Your task to perform on an android device: What's the weather going to be tomorrow? Image 0: 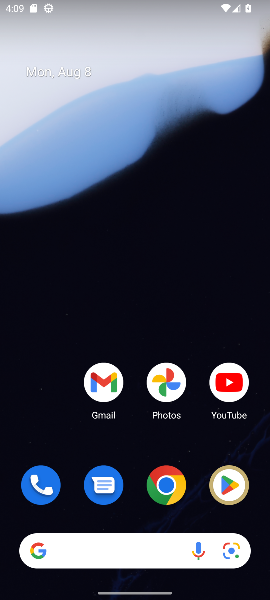
Step 0: press back button
Your task to perform on an android device: What's the weather going to be tomorrow? Image 1: 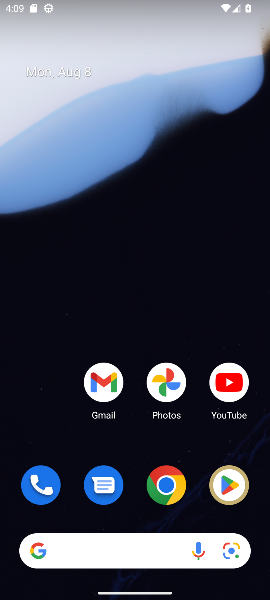
Step 1: drag from (184, 493) to (180, 127)
Your task to perform on an android device: What's the weather going to be tomorrow? Image 2: 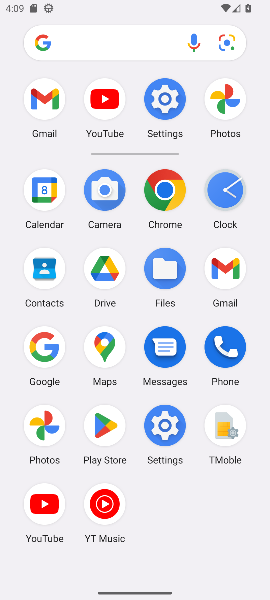
Step 2: click (162, 190)
Your task to perform on an android device: What's the weather going to be tomorrow? Image 3: 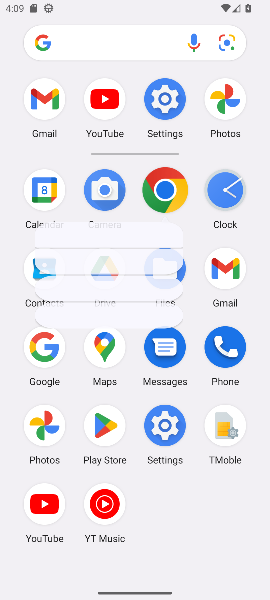
Step 3: click (162, 190)
Your task to perform on an android device: What's the weather going to be tomorrow? Image 4: 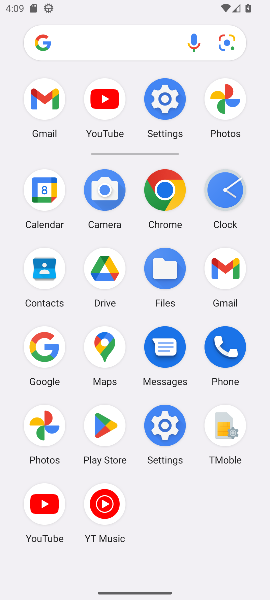
Step 4: click (162, 190)
Your task to perform on an android device: What's the weather going to be tomorrow? Image 5: 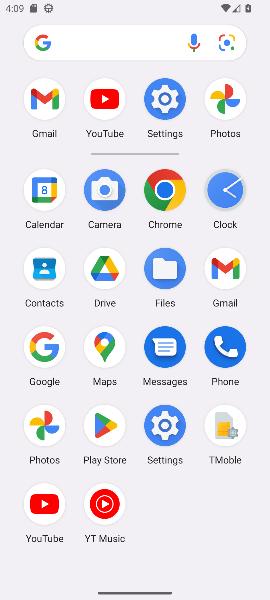
Step 5: click (162, 191)
Your task to perform on an android device: What's the weather going to be tomorrow? Image 6: 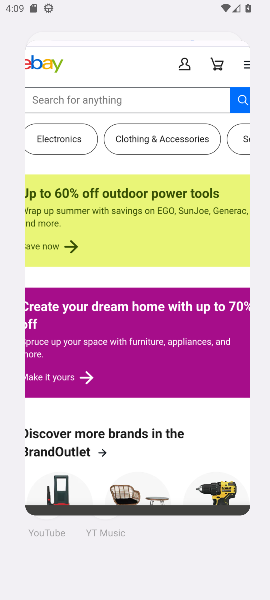
Step 6: click (162, 191)
Your task to perform on an android device: What's the weather going to be tomorrow? Image 7: 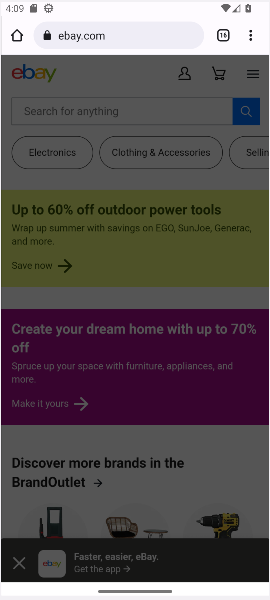
Step 7: click (161, 190)
Your task to perform on an android device: What's the weather going to be tomorrow? Image 8: 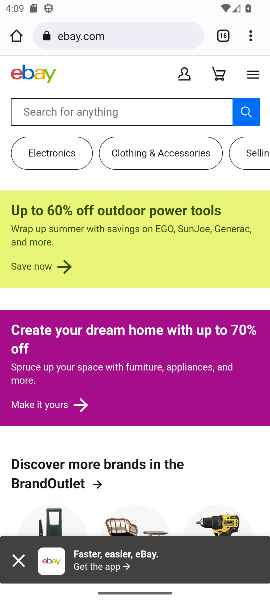
Step 8: click (171, 185)
Your task to perform on an android device: What's the weather going to be tomorrow? Image 9: 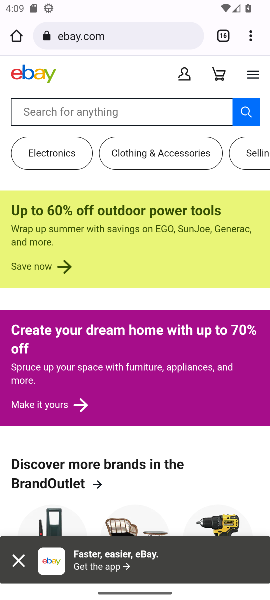
Step 9: drag from (250, 34) to (127, 65)
Your task to perform on an android device: What's the weather going to be tomorrow? Image 10: 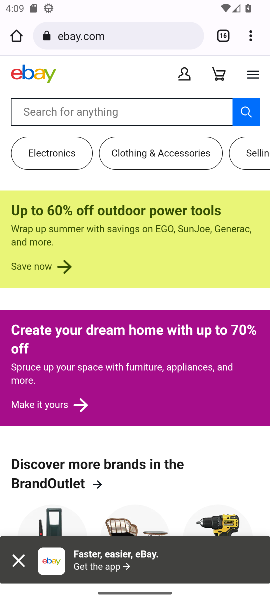
Step 10: click (126, 66)
Your task to perform on an android device: What's the weather going to be tomorrow? Image 11: 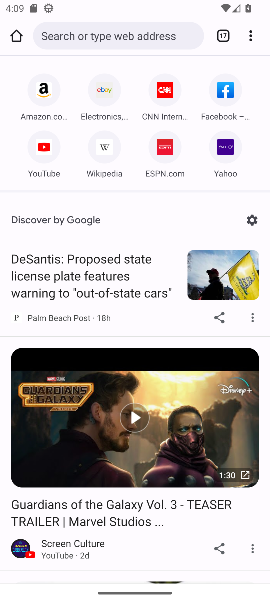
Step 11: click (67, 31)
Your task to perform on an android device: What's the weather going to be tomorrow? Image 12: 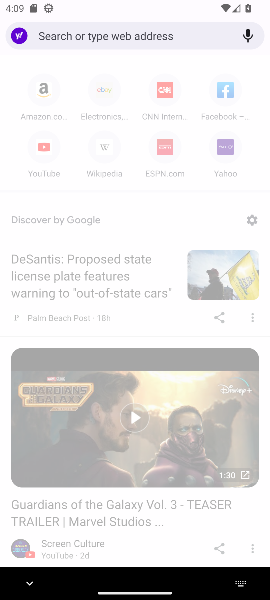
Step 12: type "what's the weather gpoing to be tomorrow"
Your task to perform on an android device: What's the weather going to be tomorrow? Image 13: 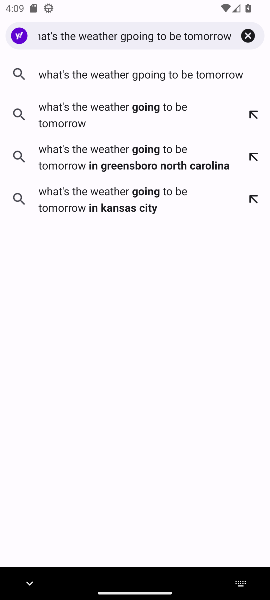
Step 13: click (116, 75)
Your task to perform on an android device: What's the weather going to be tomorrow? Image 14: 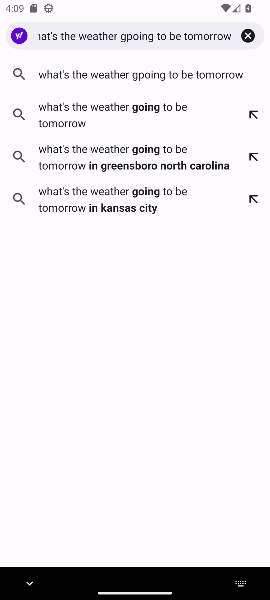
Step 14: click (113, 73)
Your task to perform on an android device: What's the weather going to be tomorrow? Image 15: 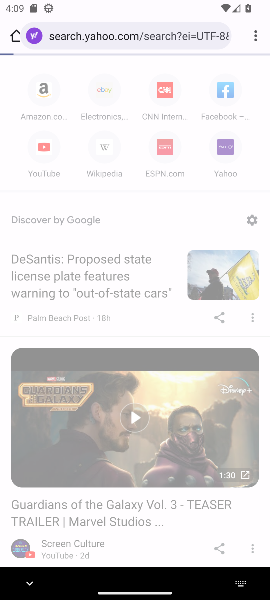
Step 15: click (113, 73)
Your task to perform on an android device: What's the weather going to be tomorrow? Image 16: 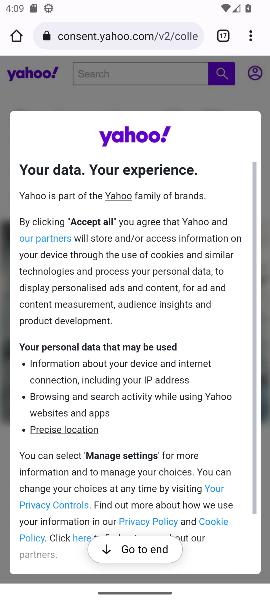
Step 16: task complete